Your task to perform on an android device: Toggle the flashlight Image 0: 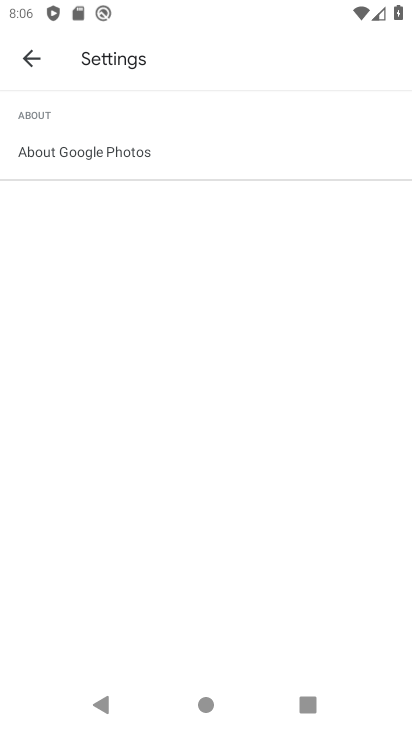
Step 0: press home button
Your task to perform on an android device: Toggle the flashlight Image 1: 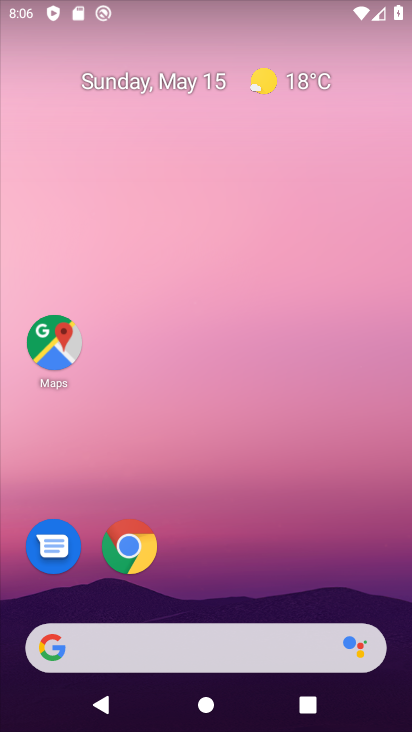
Step 1: drag from (296, 558) to (299, 178)
Your task to perform on an android device: Toggle the flashlight Image 2: 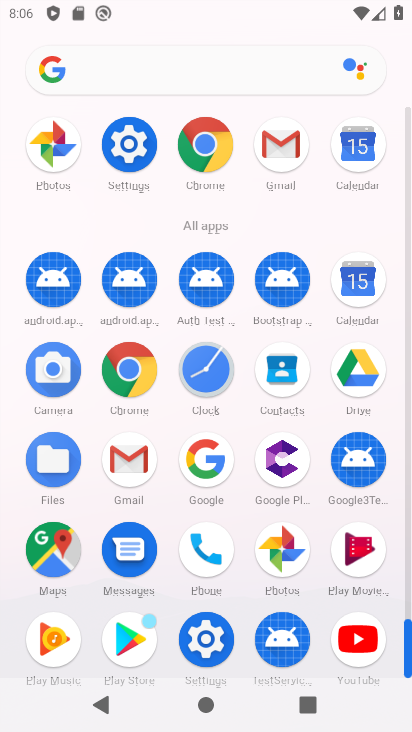
Step 2: click (119, 143)
Your task to perform on an android device: Toggle the flashlight Image 3: 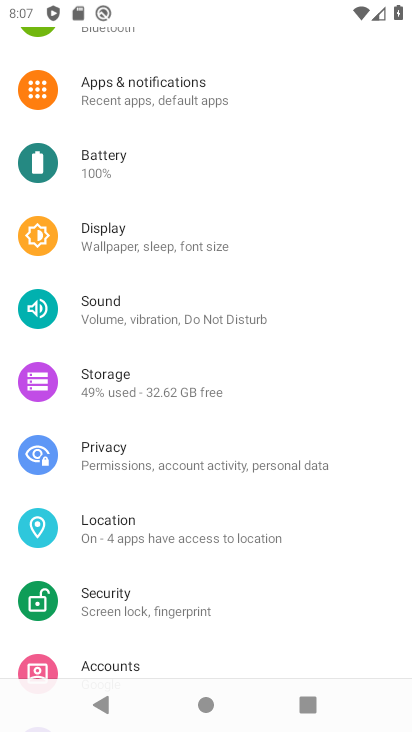
Step 3: task complete